Your task to perform on an android device: open a new tab in the chrome app Image 0: 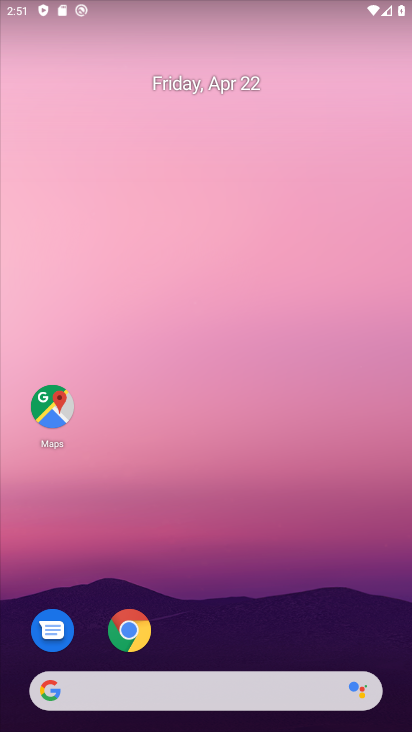
Step 0: drag from (257, 550) to (145, 0)
Your task to perform on an android device: open a new tab in the chrome app Image 1: 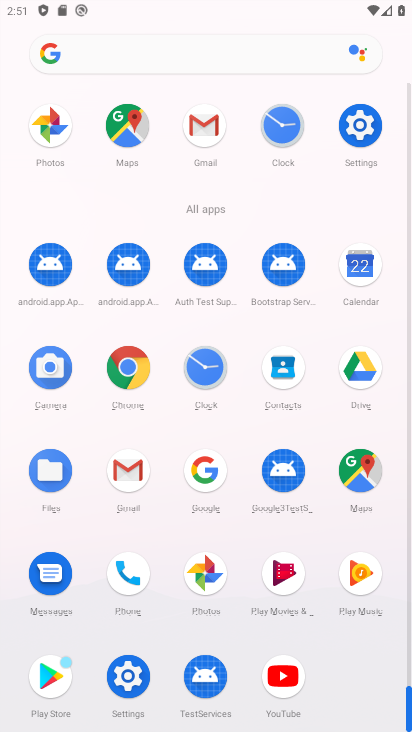
Step 1: drag from (13, 541) to (6, 304)
Your task to perform on an android device: open a new tab in the chrome app Image 2: 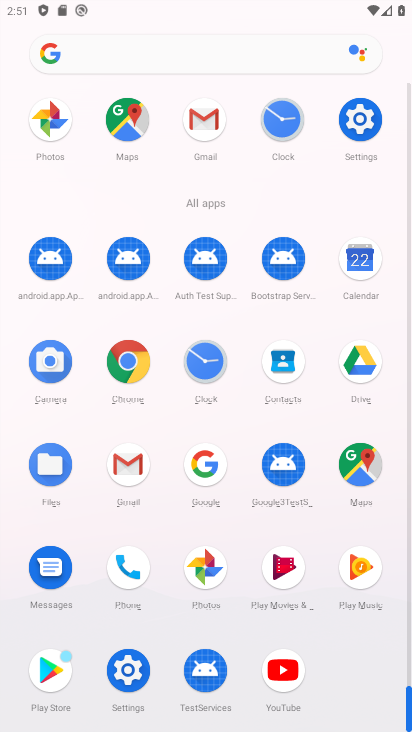
Step 2: click (129, 356)
Your task to perform on an android device: open a new tab in the chrome app Image 3: 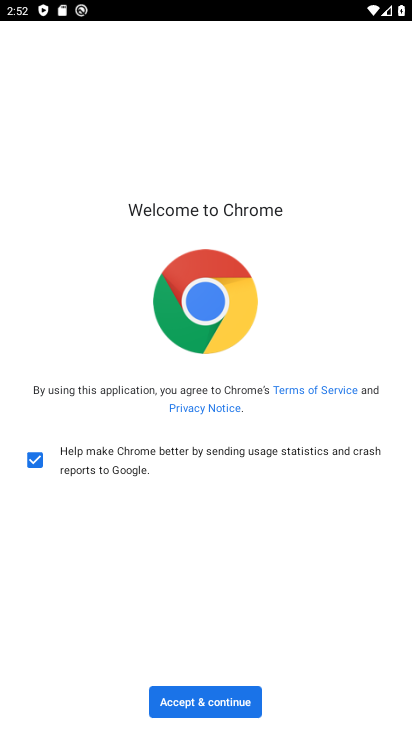
Step 3: click (215, 701)
Your task to perform on an android device: open a new tab in the chrome app Image 4: 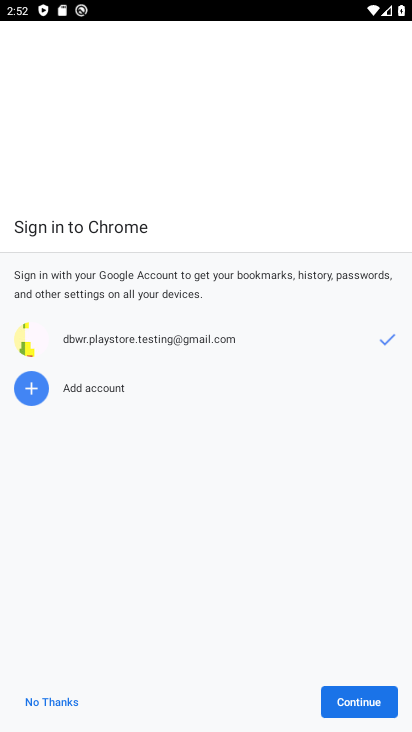
Step 4: click (343, 690)
Your task to perform on an android device: open a new tab in the chrome app Image 5: 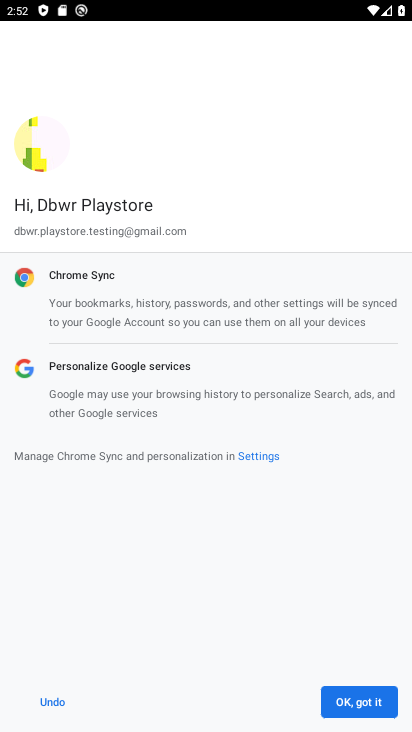
Step 5: click (353, 705)
Your task to perform on an android device: open a new tab in the chrome app Image 6: 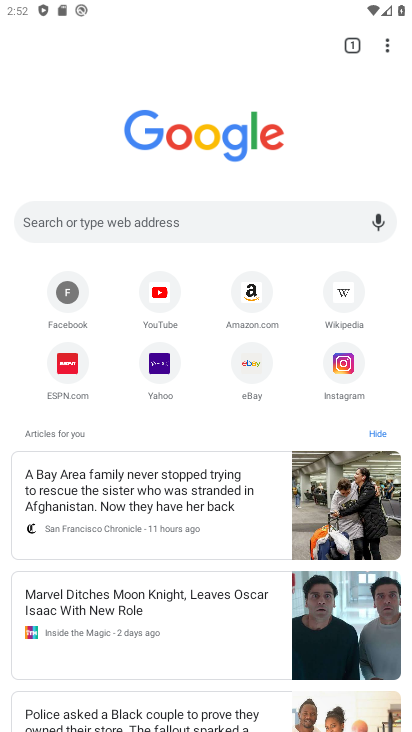
Step 6: task complete